Your task to perform on an android device: Open calendar and show me the third week of next month Image 0: 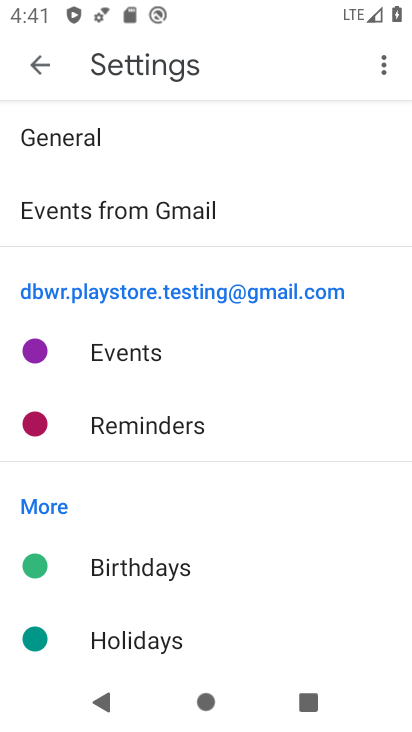
Step 0: press home button
Your task to perform on an android device: Open calendar and show me the third week of next month Image 1: 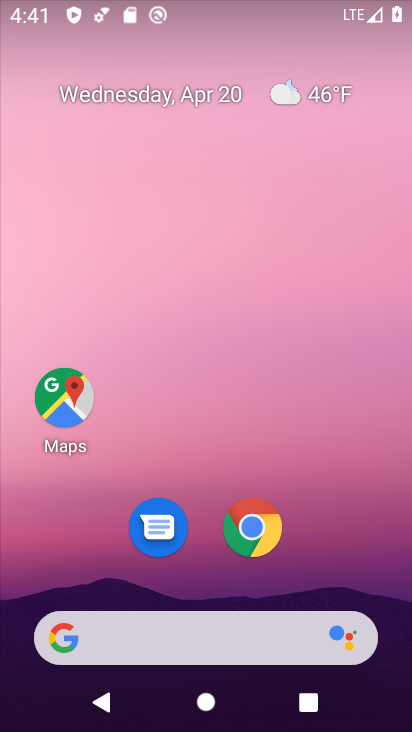
Step 1: drag from (317, 588) to (278, 75)
Your task to perform on an android device: Open calendar and show me the third week of next month Image 2: 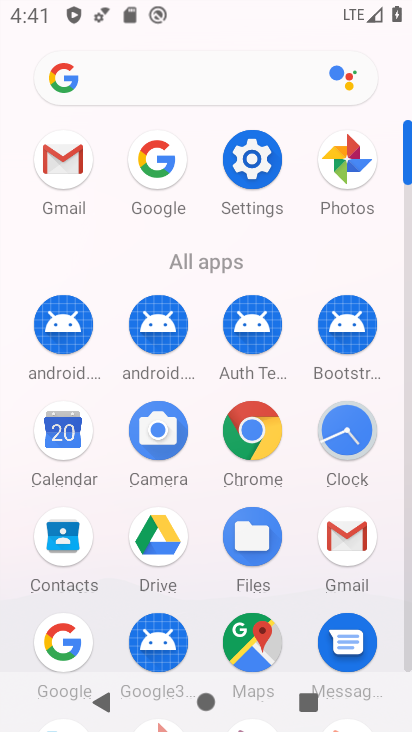
Step 2: click (58, 431)
Your task to perform on an android device: Open calendar and show me the third week of next month Image 3: 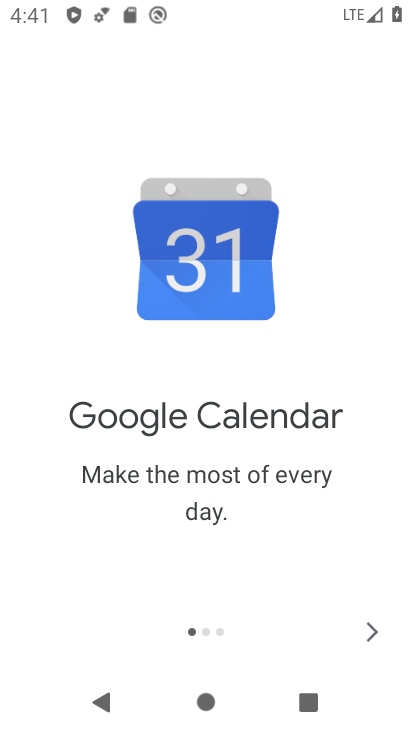
Step 3: click (365, 630)
Your task to perform on an android device: Open calendar and show me the third week of next month Image 4: 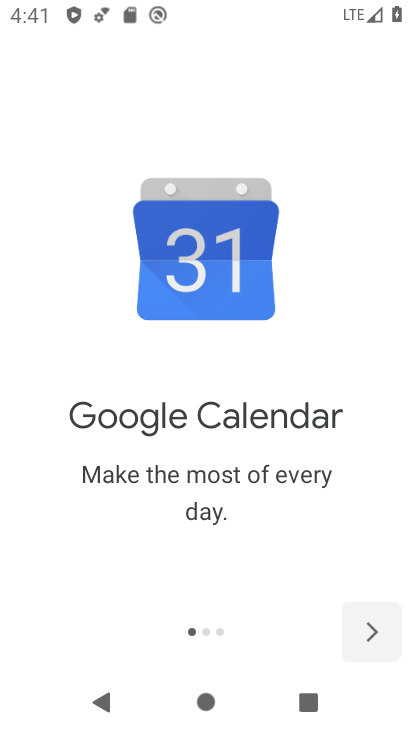
Step 4: click (365, 630)
Your task to perform on an android device: Open calendar and show me the third week of next month Image 5: 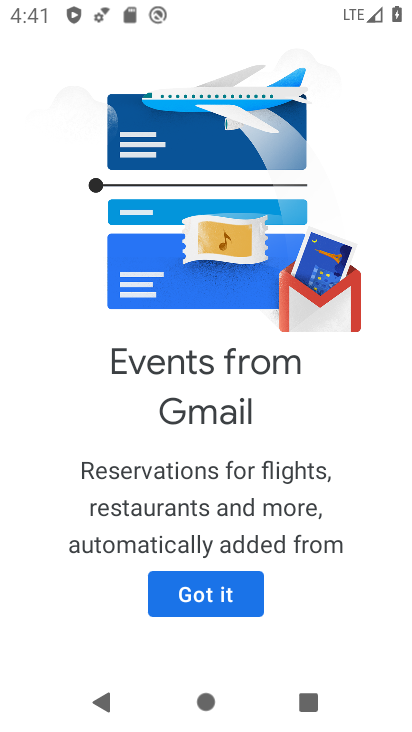
Step 5: click (206, 603)
Your task to perform on an android device: Open calendar and show me the third week of next month Image 6: 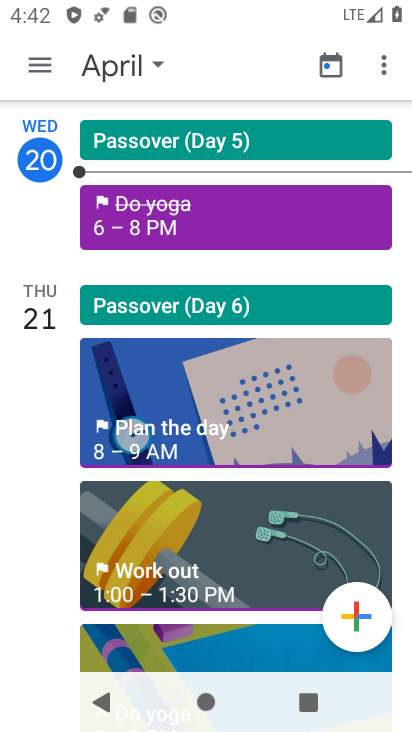
Step 6: click (40, 64)
Your task to perform on an android device: Open calendar and show me the third week of next month Image 7: 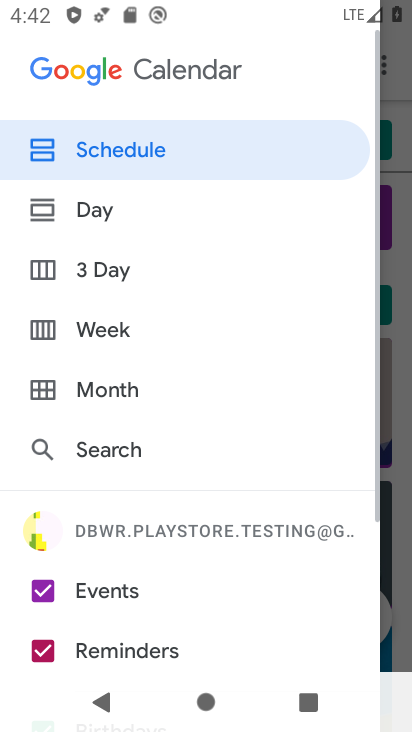
Step 7: click (79, 326)
Your task to perform on an android device: Open calendar and show me the third week of next month Image 8: 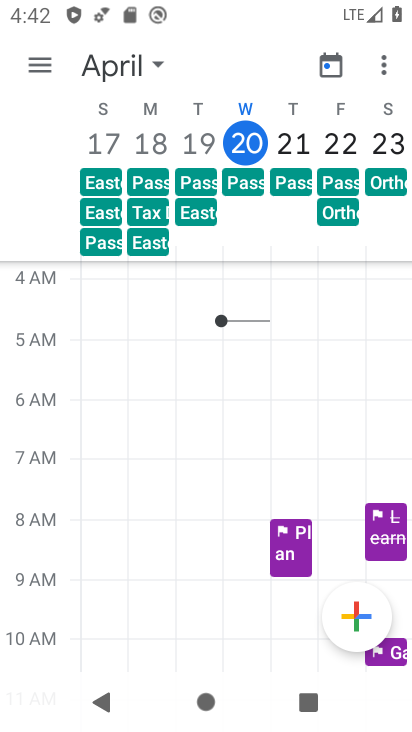
Step 8: click (155, 61)
Your task to perform on an android device: Open calendar and show me the third week of next month Image 9: 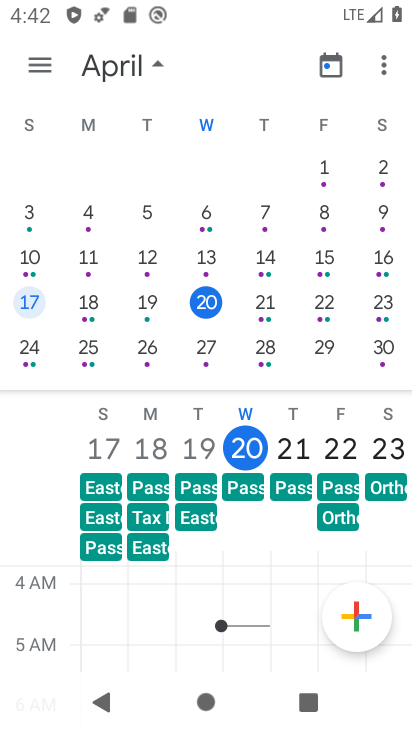
Step 9: drag from (339, 293) to (0, 238)
Your task to perform on an android device: Open calendar and show me the third week of next month Image 10: 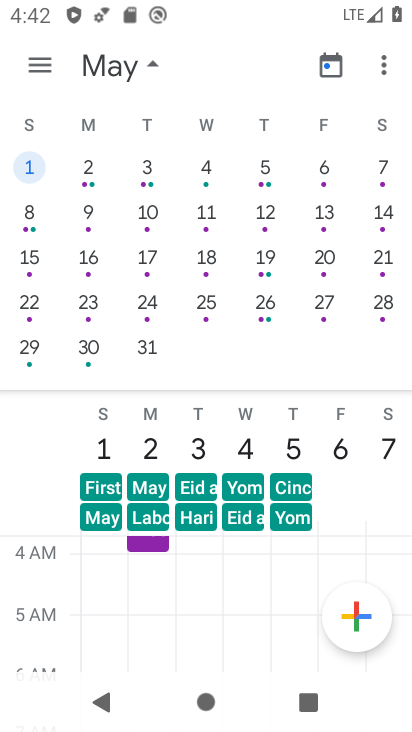
Step 10: click (39, 250)
Your task to perform on an android device: Open calendar and show me the third week of next month Image 11: 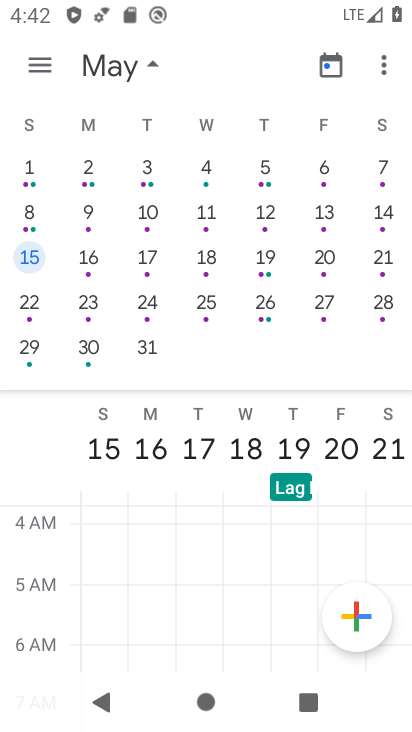
Step 11: task complete